Your task to perform on an android device: Play the last video I watched on Youtube Image 0: 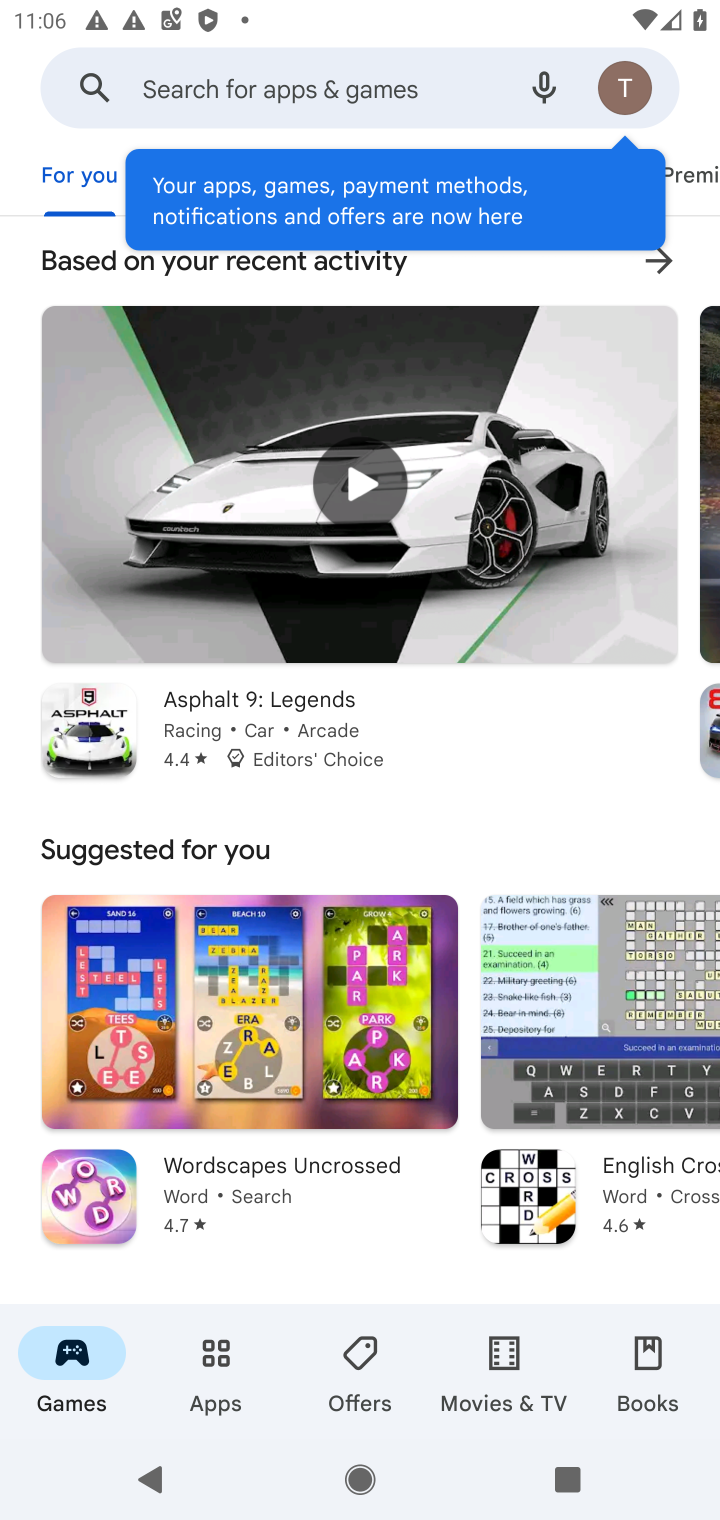
Step 0: press home button
Your task to perform on an android device: Play the last video I watched on Youtube Image 1: 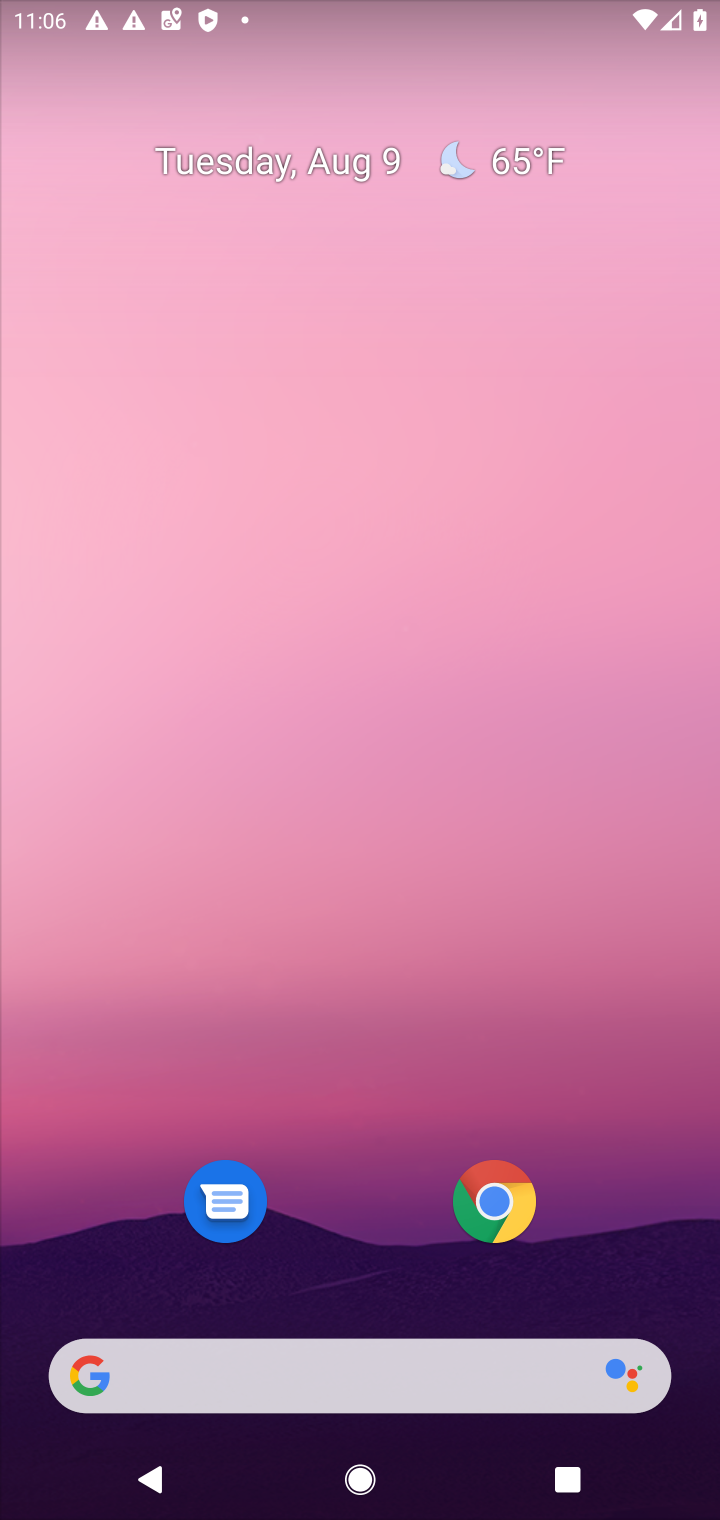
Step 1: drag from (426, 376) to (423, 56)
Your task to perform on an android device: Play the last video I watched on Youtube Image 2: 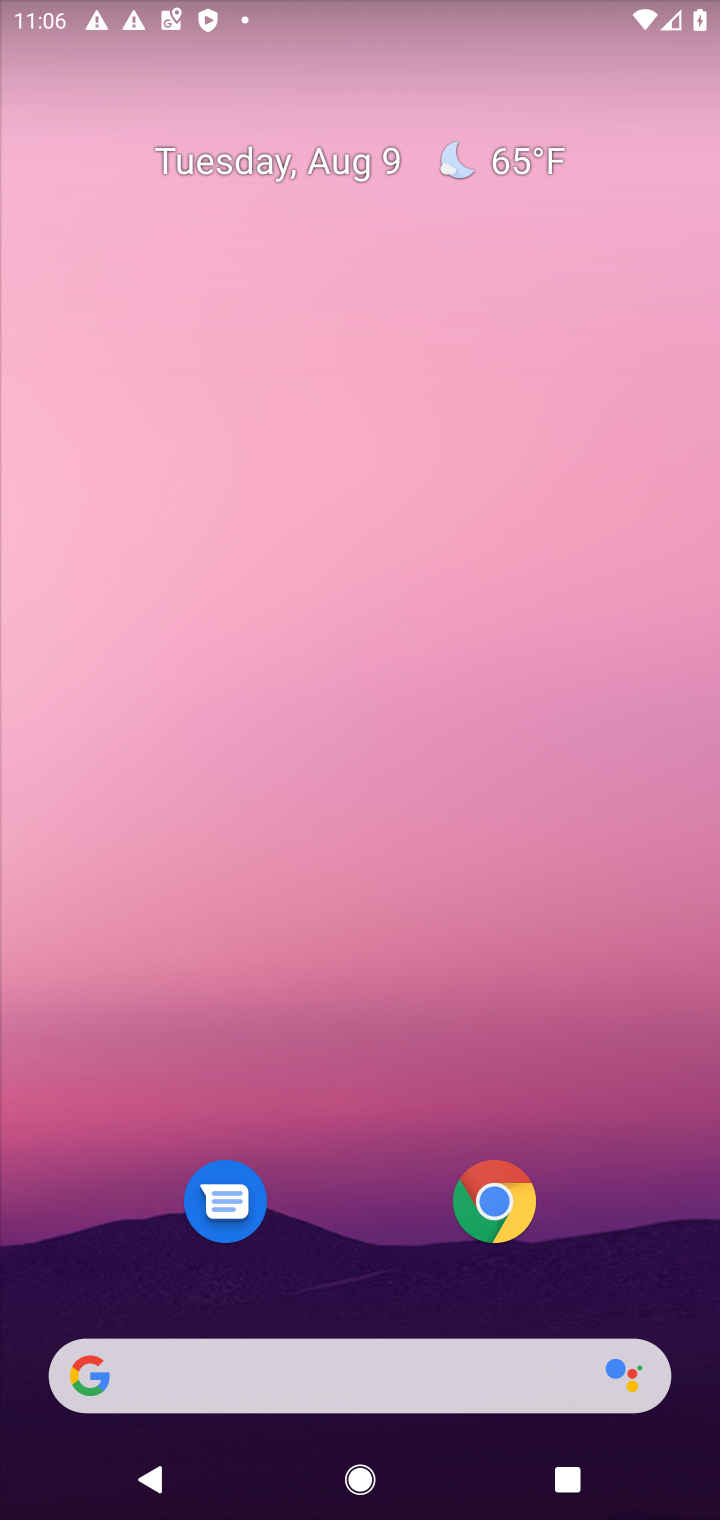
Step 2: drag from (322, 933) to (393, 0)
Your task to perform on an android device: Play the last video I watched on Youtube Image 3: 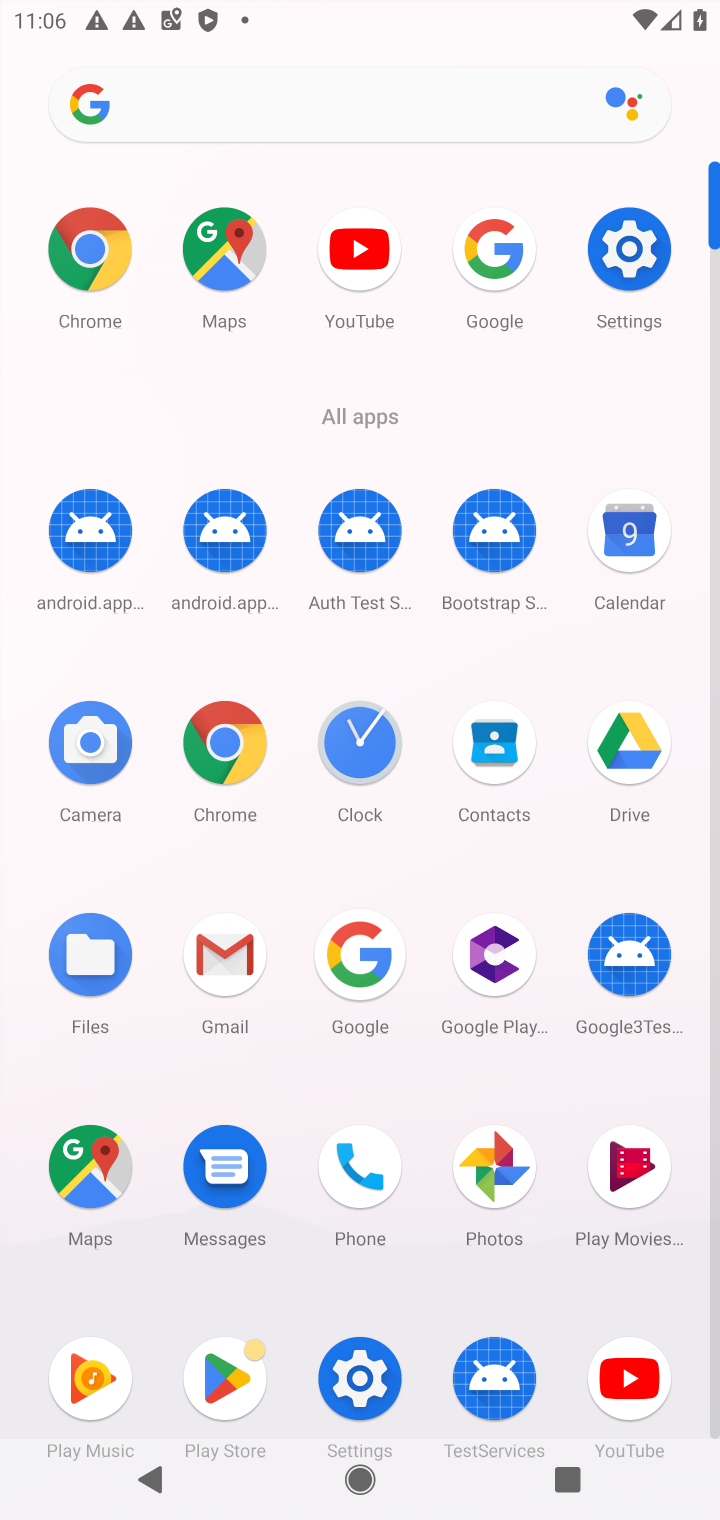
Step 3: click (622, 1377)
Your task to perform on an android device: Play the last video I watched on Youtube Image 4: 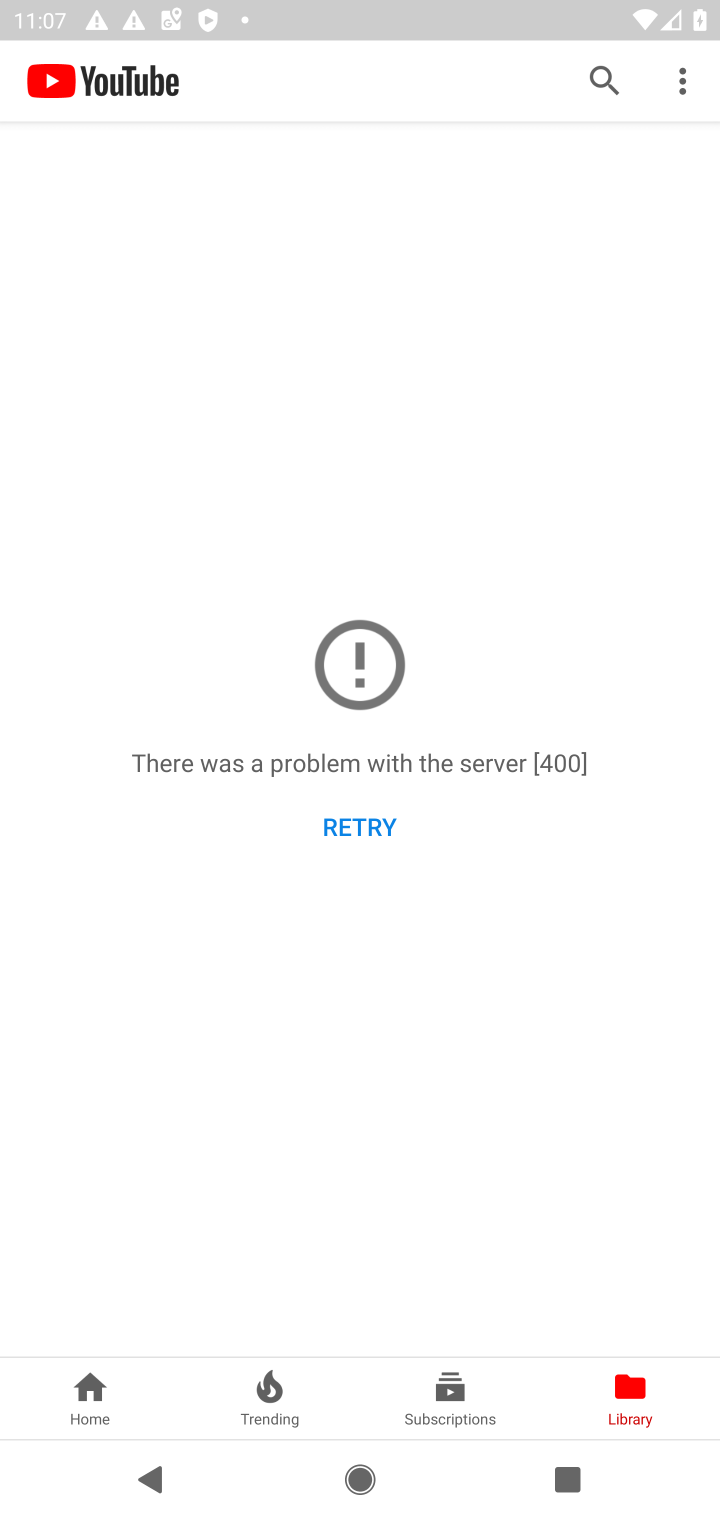
Step 4: click (358, 820)
Your task to perform on an android device: Play the last video I watched on Youtube Image 5: 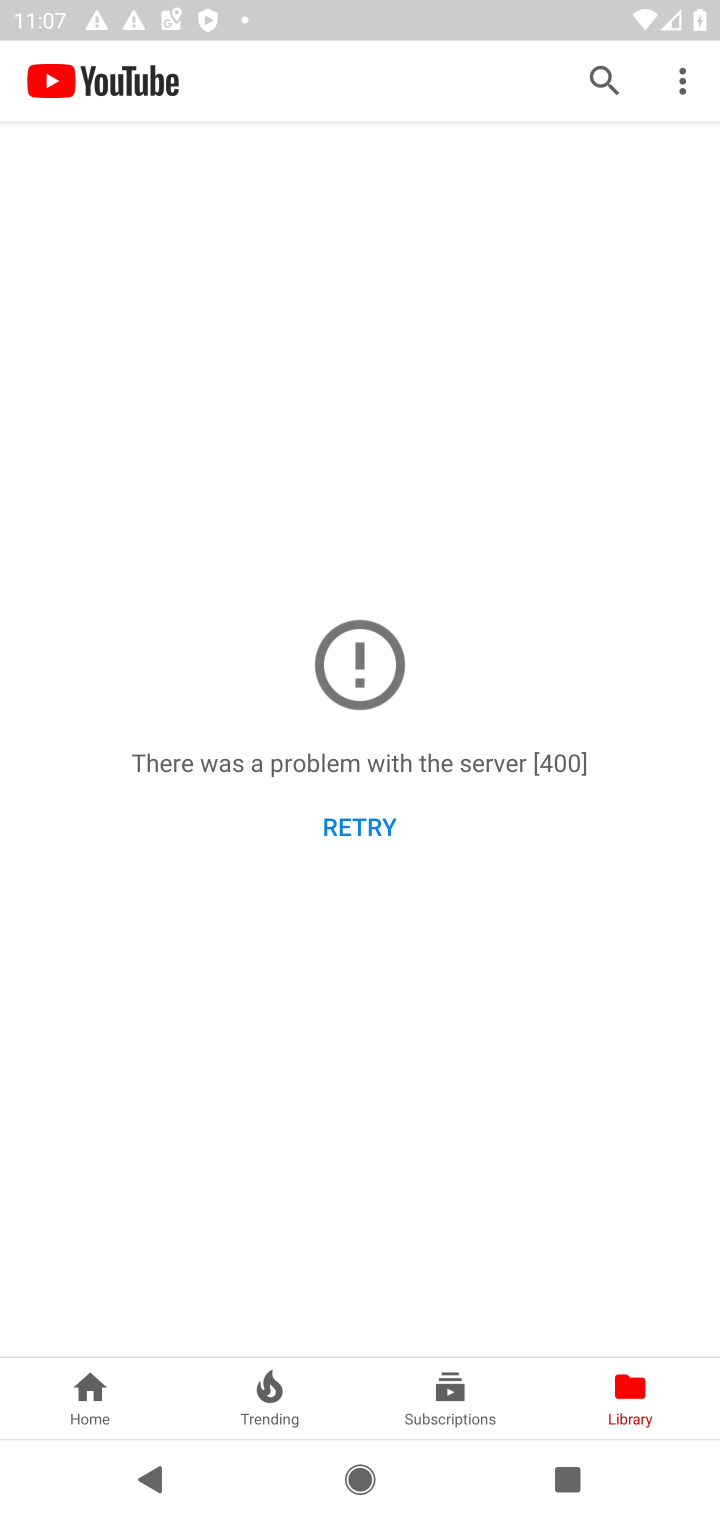
Step 5: task complete